Your task to perform on an android device: install app "Google Play Games" Image 0: 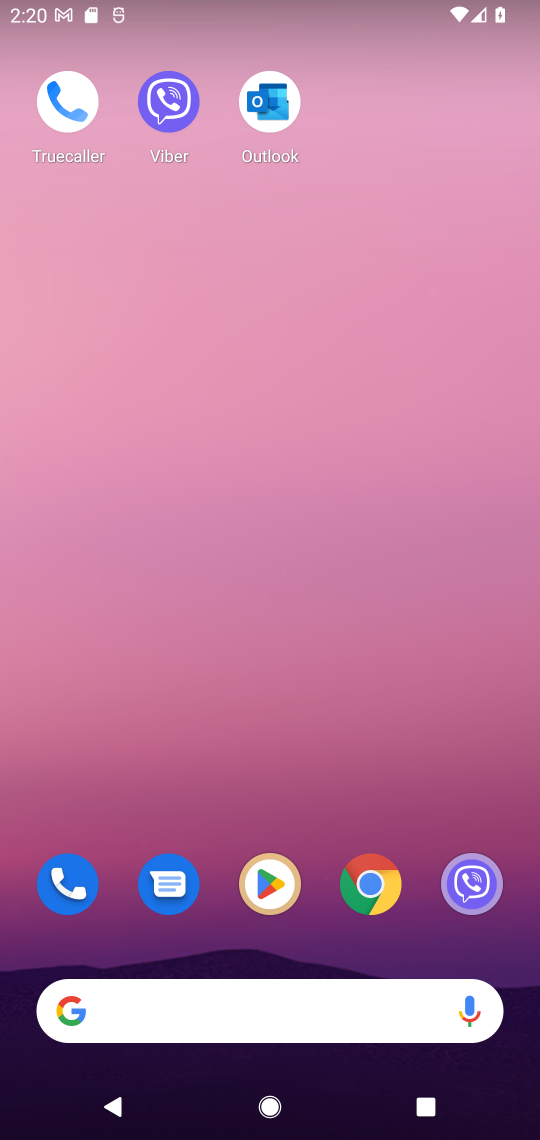
Step 0: click (276, 878)
Your task to perform on an android device: install app "Google Play Games" Image 1: 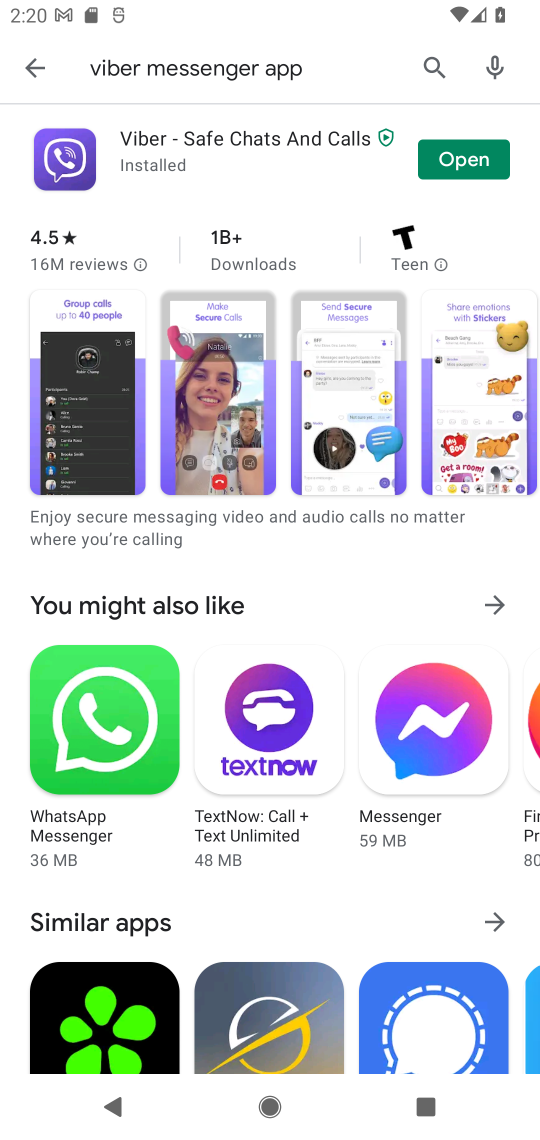
Step 1: click (434, 66)
Your task to perform on an android device: install app "Google Play Games" Image 2: 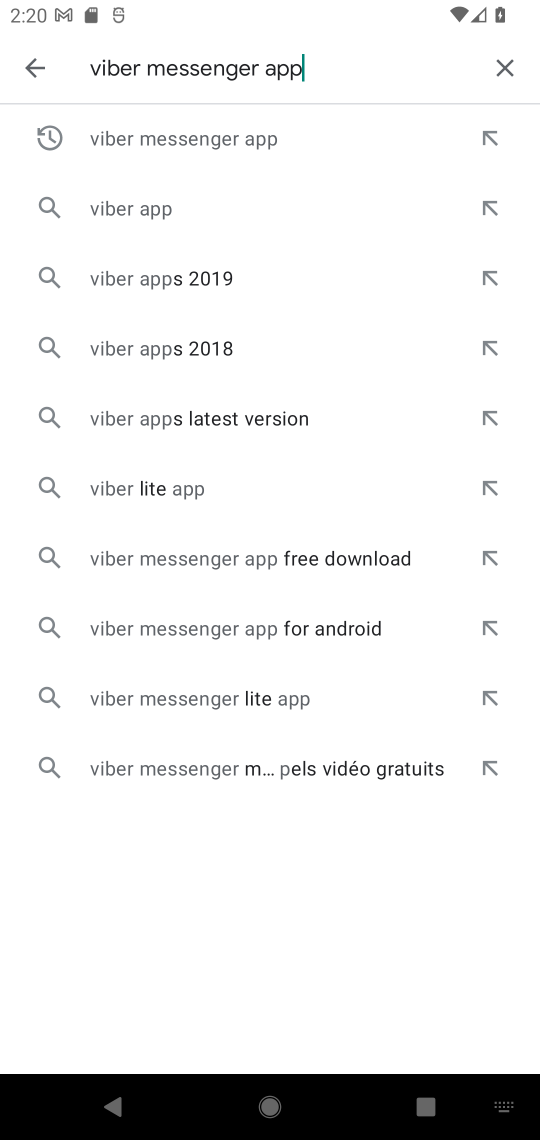
Step 2: click (503, 63)
Your task to perform on an android device: install app "Google Play Games" Image 3: 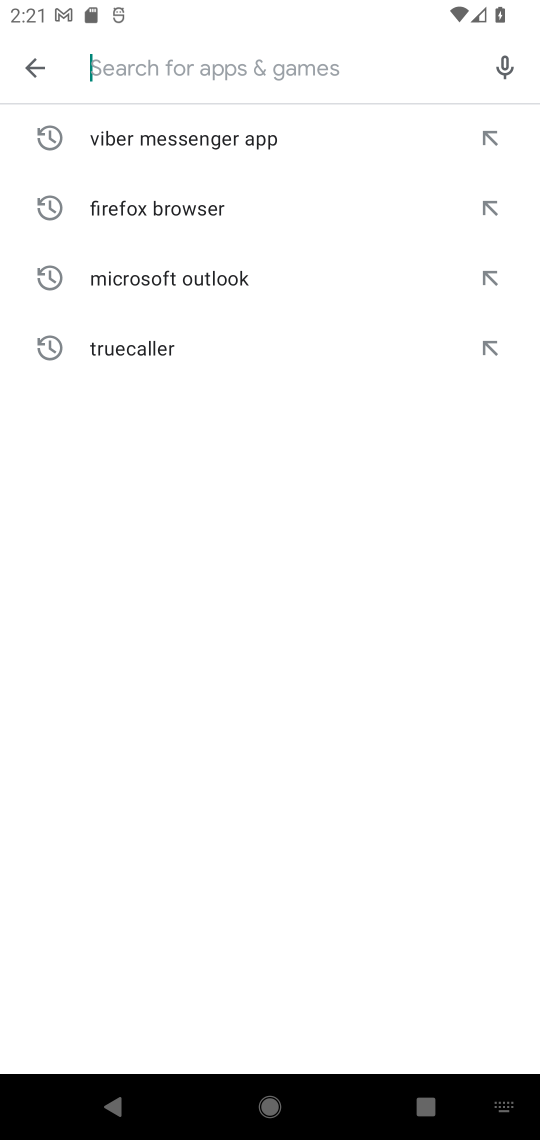
Step 3: type "google play games"
Your task to perform on an android device: install app "Google Play Games" Image 4: 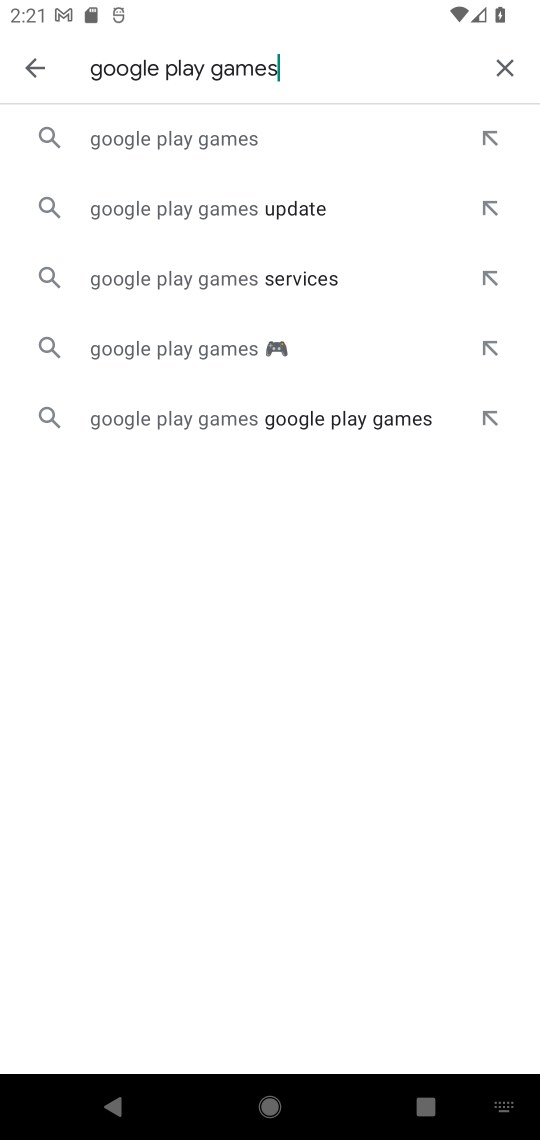
Step 4: click (183, 133)
Your task to perform on an android device: install app "Google Play Games" Image 5: 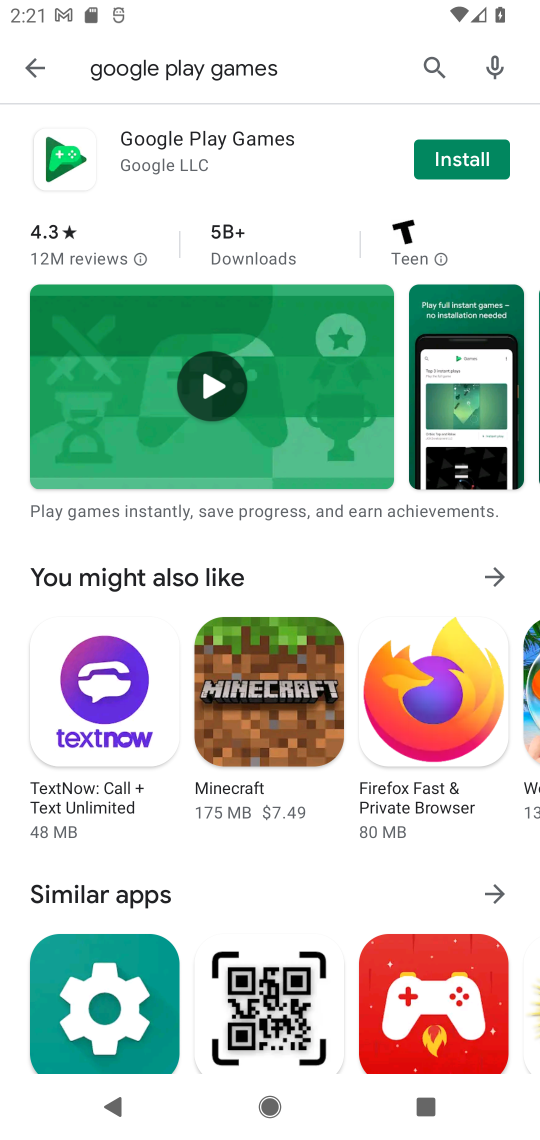
Step 5: click (449, 162)
Your task to perform on an android device: install app "Google Play Games" Image 6: 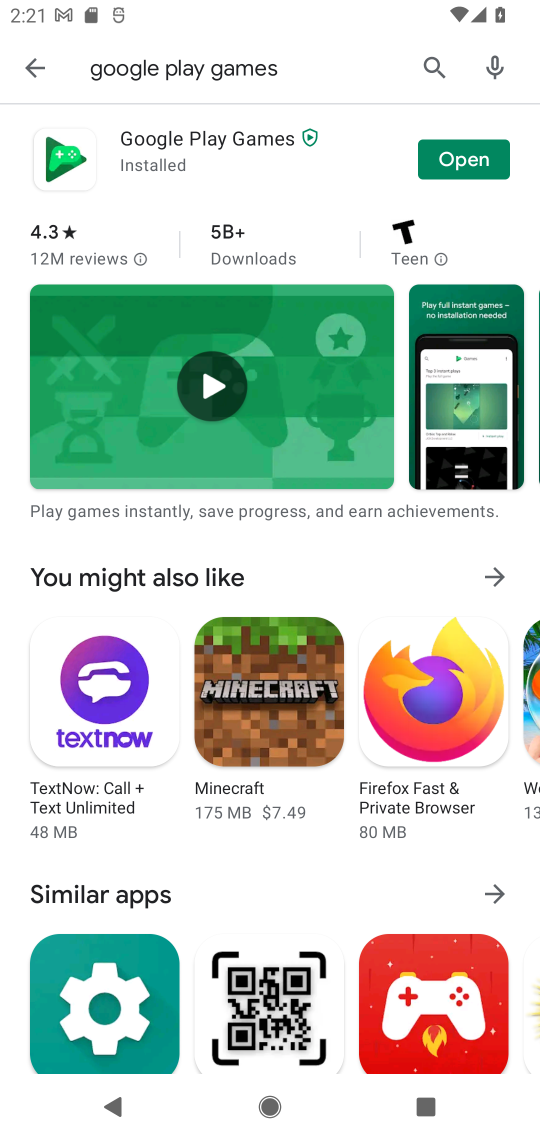
Step 6: task complete